Your task to perform on an android device: toggle airplane mode Image 0: 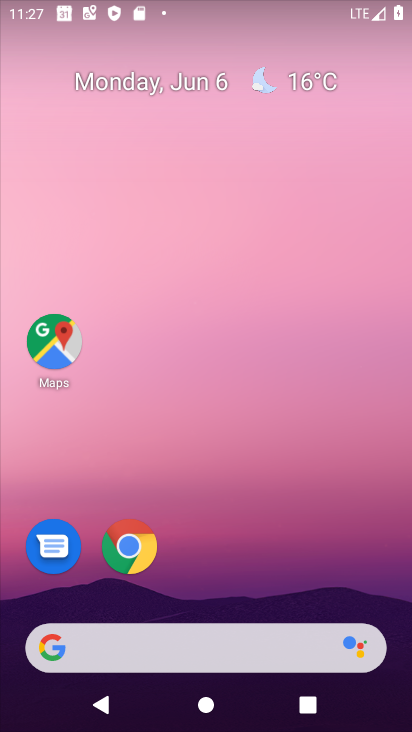
Step 0: drag from (314, 443) to (283, 70)
Your task to perform on an android device: toggle airplane mode Image 1: 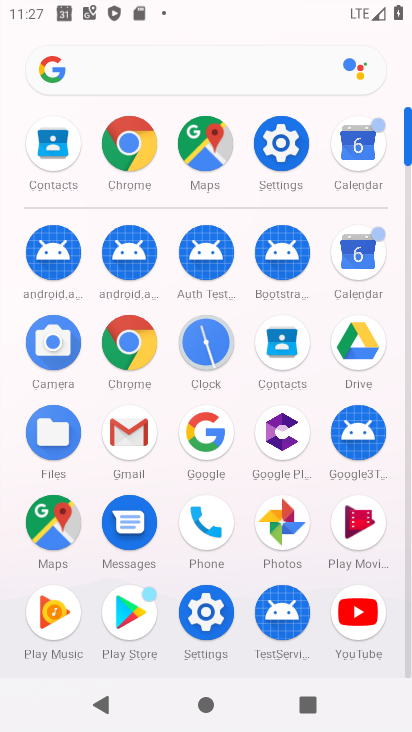
Step 1: click (291, 146)
Your task to perform on an android device: toggle airplane mode Image 2: 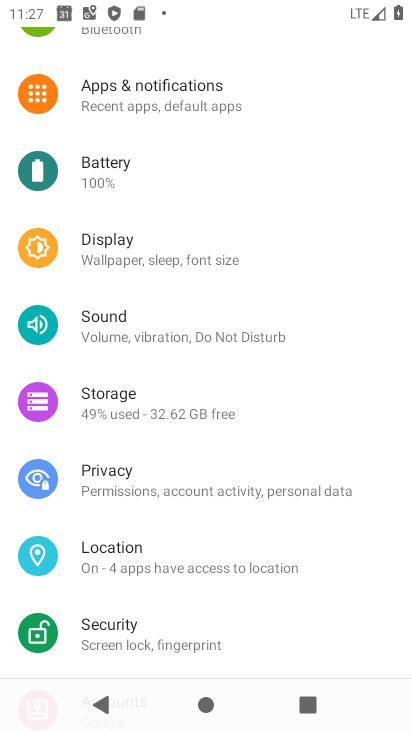
Step 2: drag from (129, 73) to (120, 503)
Your task to perform on an android device: toggle airplane mode Image 3: 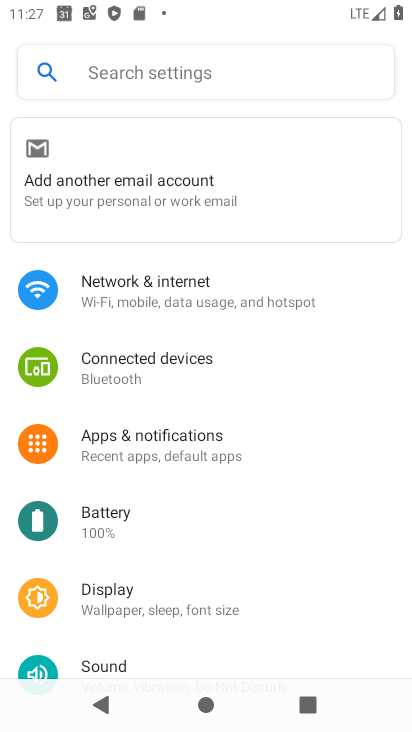
Step 3: click (122, 281)
Your task to perform on an android device: toggle airplane mode Image 4: 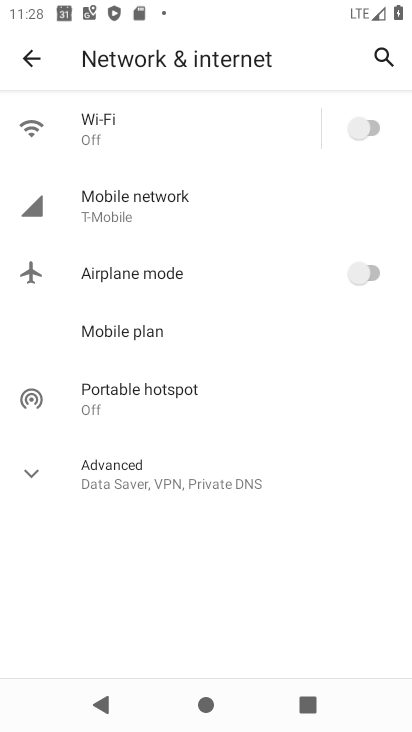
Step 4: click (360, 275)
Your task to perform on an android device: toggle airplane mode Image 5: 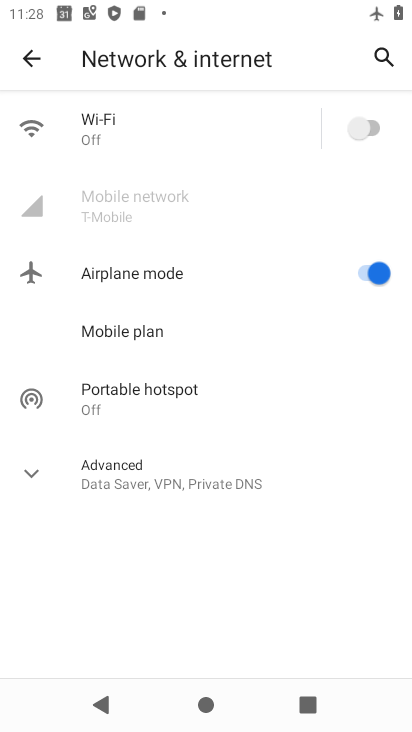
Step 5: task complete